Your task to perform on an android device: turn on showing notifications on the lock screen Image 0: 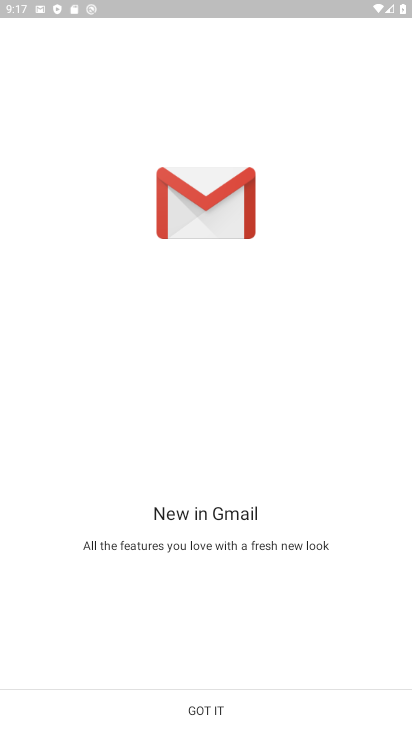
Step 0: press home button
Your task to perform on an android device: turn on showing notifications on the lock screen Image 1: 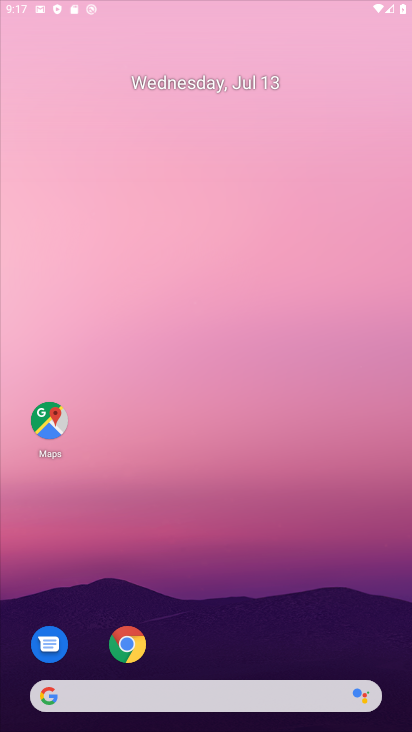
Step 1: drag from (197, 665) to (403, 202)
Your task to perform on an android device: turn on showing notifications on the lock screen Image 2: 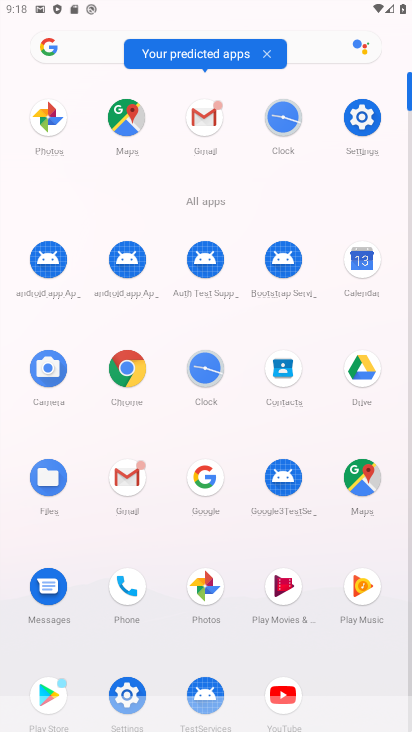
Step 2: click (128, 687)
Your task to perform on an android device: turn on showing notifications on the lock screen Image 3: 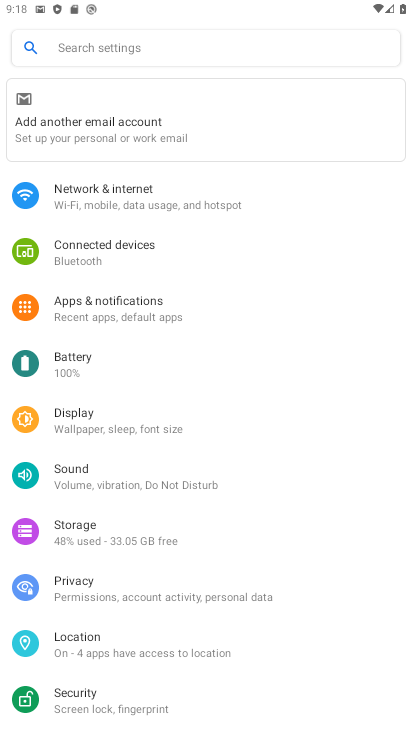
Step 3: click (151, 313)
Your task to perform on an android device: turn on showing notifications on the lock screen Image 4: 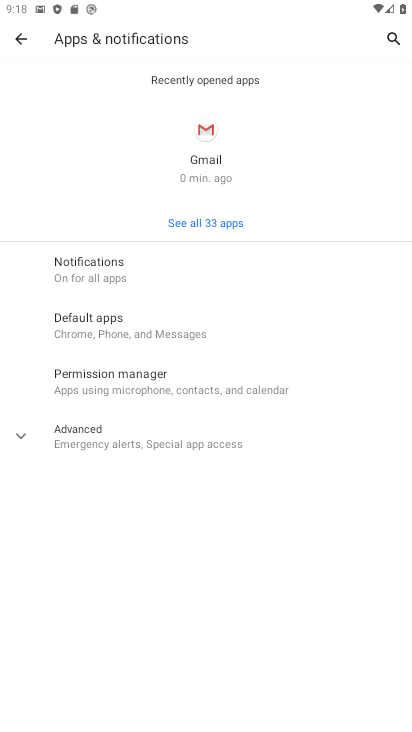
Step 4: click (175, 284)
Your task to perform on an android device: turn on showing notifications on the lock screen Image 5: 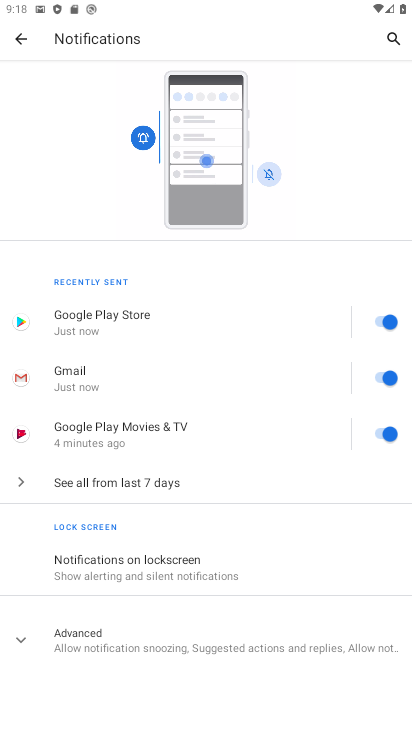
Step 5: click (159, 642)
Your task to perform on an android device: turn on showing notifications on the lock screen Image 6: 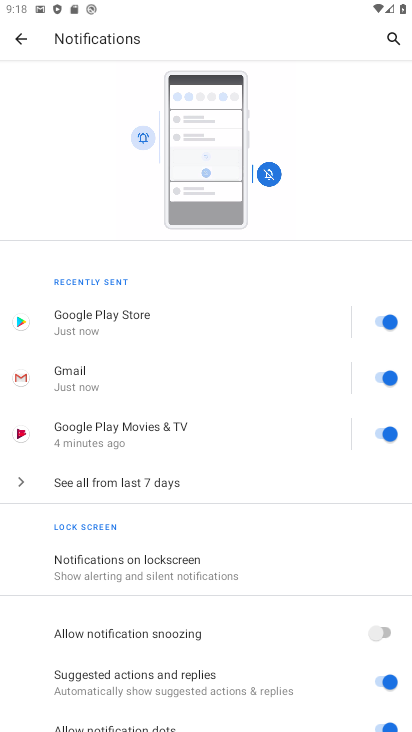
Step 6: click (203, 561)
Your task to perform on an android device: turn on showing notifications on the lock screen Image 7: 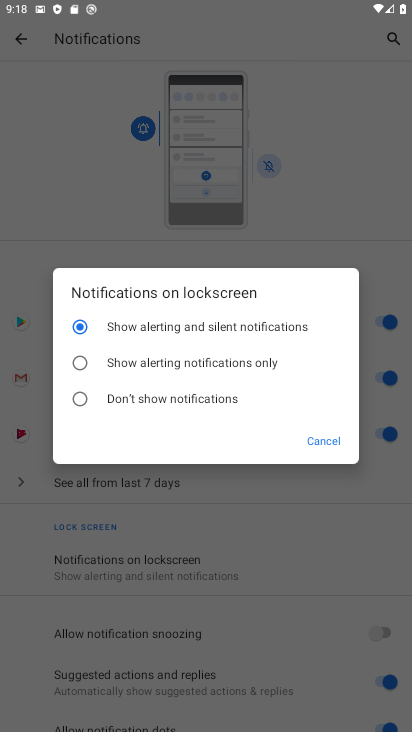
Step 7: task complete